Your task to perform on an android device: see tabs open on other devices in the chrome app Image 0: 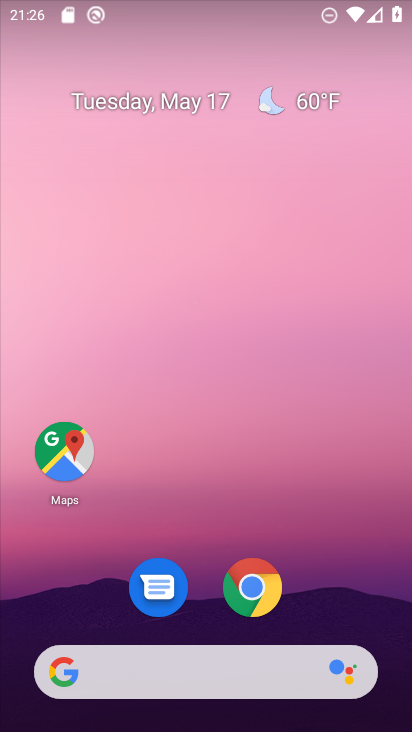
Step 0: drag from (270, 508) to (194, 84)
Your task to perform on an android device: see tabs open on other devices in the chrome app Image 1: 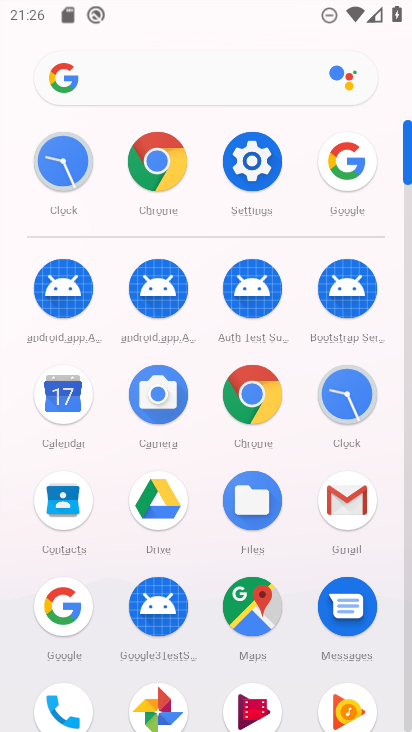
Step 1: click (253, 416)
Your task to perform on an android device: see tabs open on other devices in the chrome app Image 2: 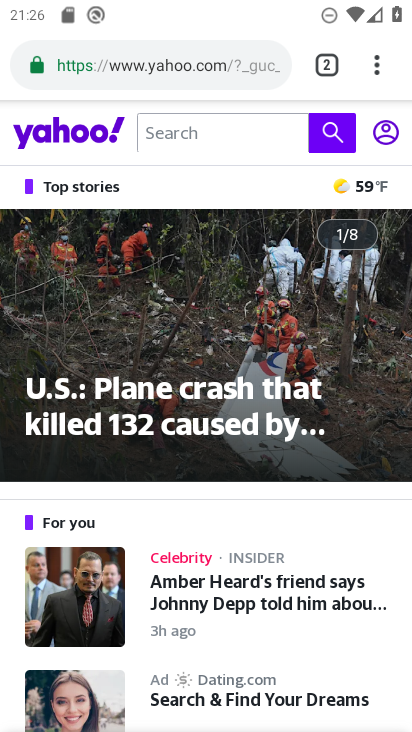
Step 2: click (384, 73)
Your task to perform on an android device: see tabs open on other devices in the chrome app Image 3: 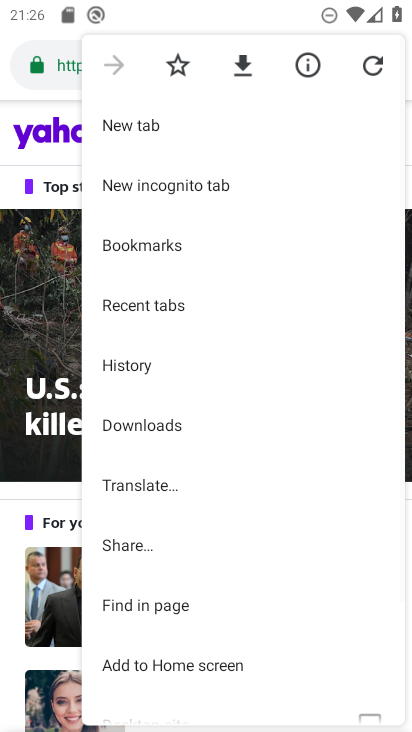
Step 3: click (248, 315)
Your task to perform on an android device: see tabs open on other devices in the chrome app Image 4: 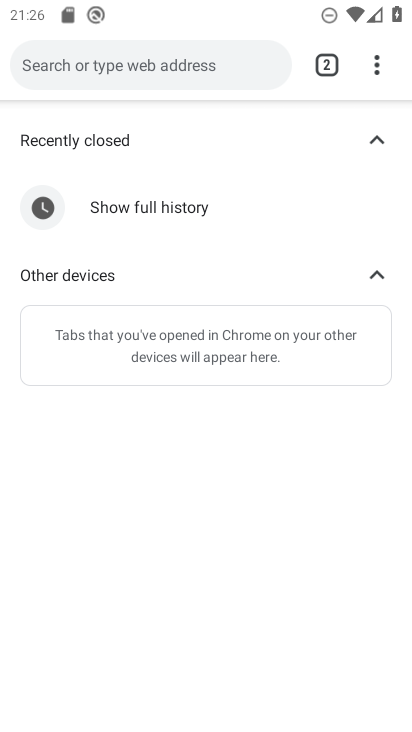
Step 4: click (346, 290)
Your task to perform on an android device: see tabs open on other devices in the chrome app Image 5: 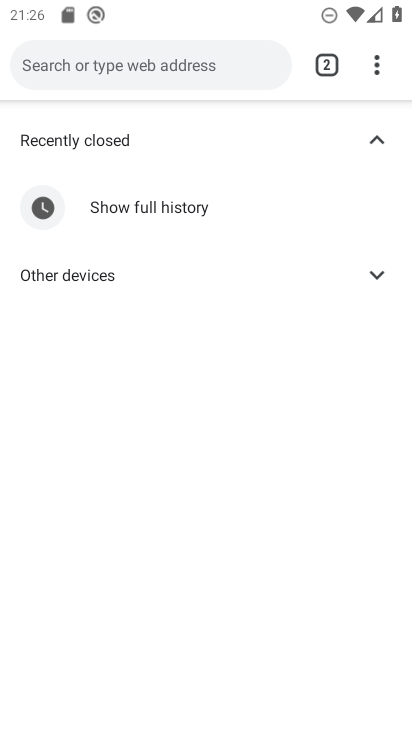
Step 5: click (350, 279)
Your task to perform on an android device: see tabs open on other devices in the chrome app Image 6: 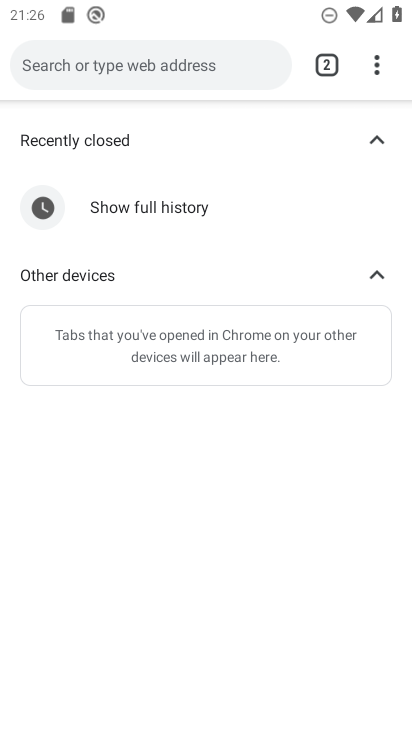
Step 6: click (310, 359)
Your task to perform on an android device: see tabs open on other devices in the chrome app Image 7: 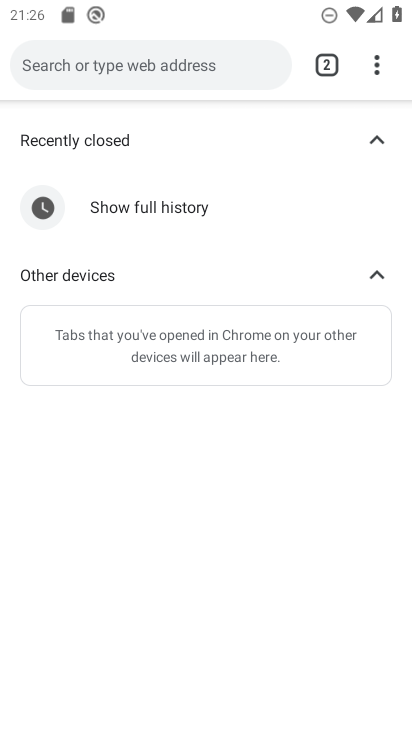
Step 7: click (362, 352)
Your task to perform on an android device: see tabs open on other devices in the chrome app Image 8: 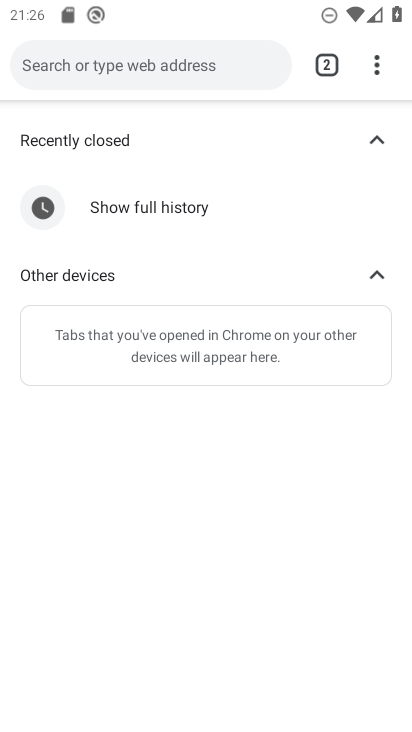
Step 8: click (293, 223)
Your task to perform on an android device: see tabs open on other devices in the chrome app Image 9: 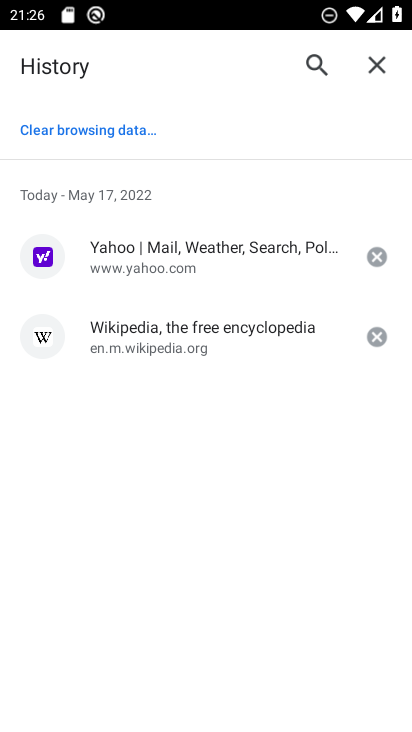
Step 9: task complete